Your task to perform on an android device: Go to Wikipedia Image 0: 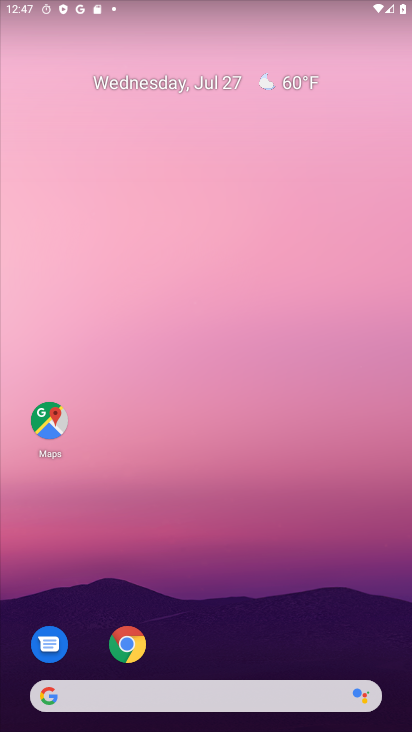
Step 0: drag from (221, 433) to (225, 185)
Your task to perform on an android device: Go to Wikipedia Image 1: 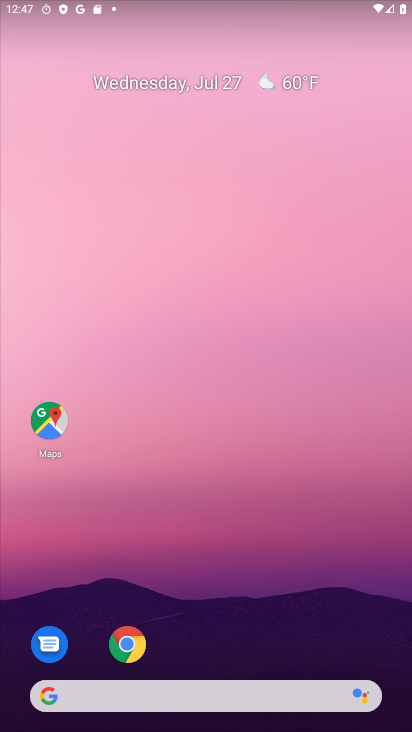
Step 1: drag from (222, 622) to (243, 219)
Your task to perform on an android device: Go to Wikipedia Image 2: 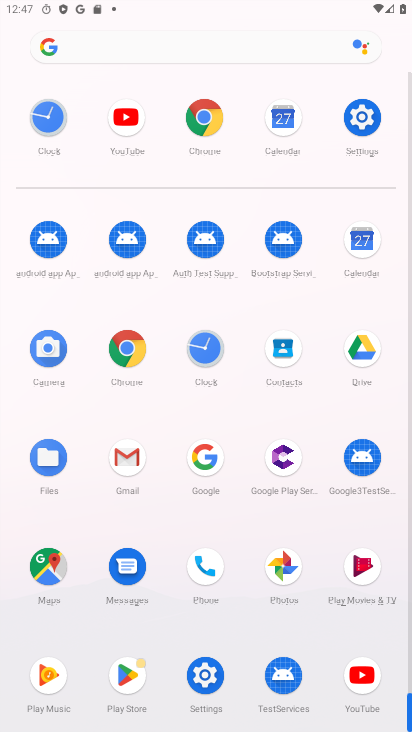
Step 2: click (155, 42)
Your task to perform on an android device: Go to Wikipedia Image 3: 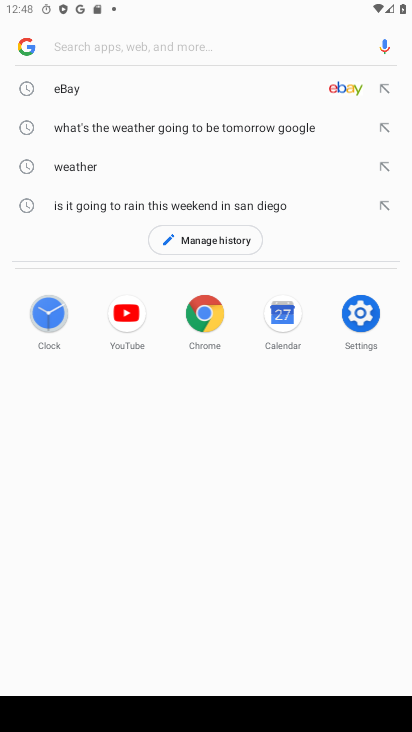
Step 3: type "Wikipedia"
Your task to perform on an android device: Go to Wikipedia Image 4: 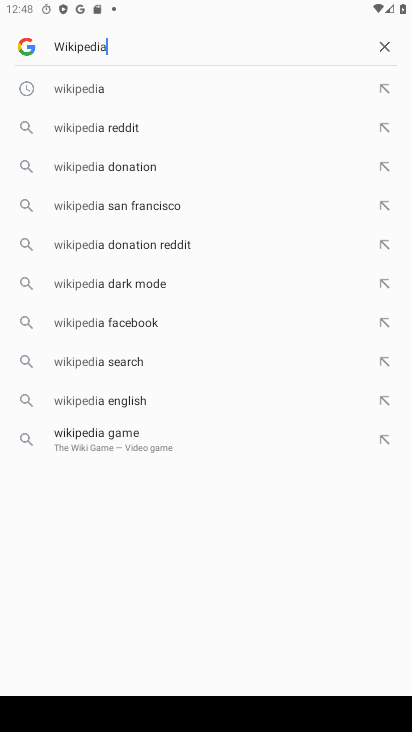
Step 4: type ""
Your task to perform on an android device: Go to Wikipedia Image 5: 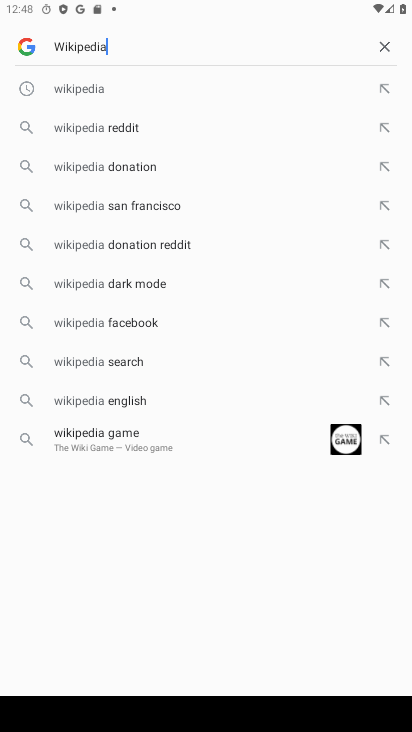
Step 5: click (104, 99)
Your task to perform on an android device: Go to Wikipedia Image 6: 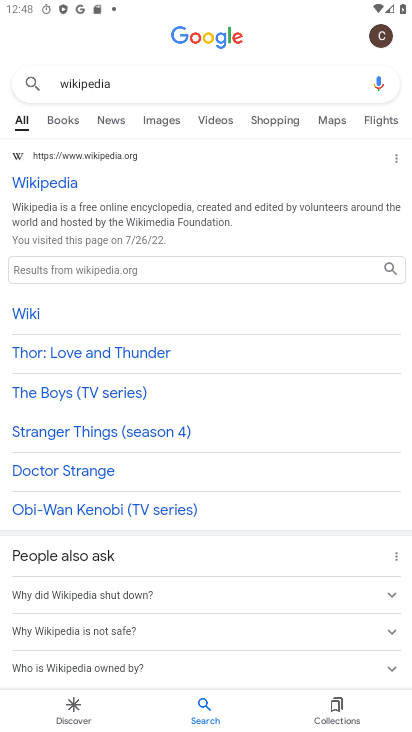
Step 6: click (29, 171)
Your task to perform on an android device: Go to Wikipedia Image 7: 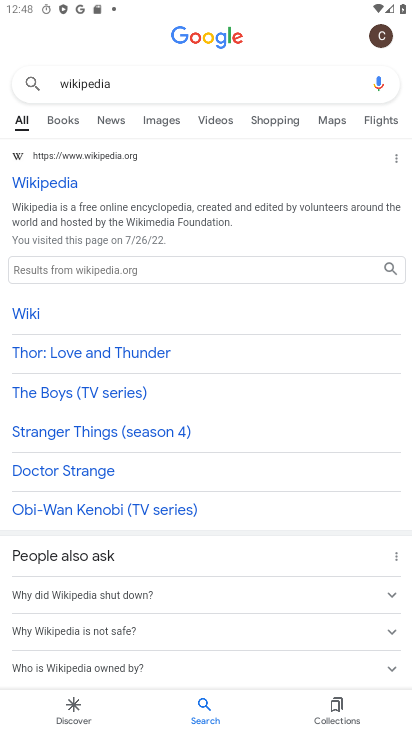
Step 7: click (31, 177)
Your task to perform on an android device: Go to Wikipedia Image 8: 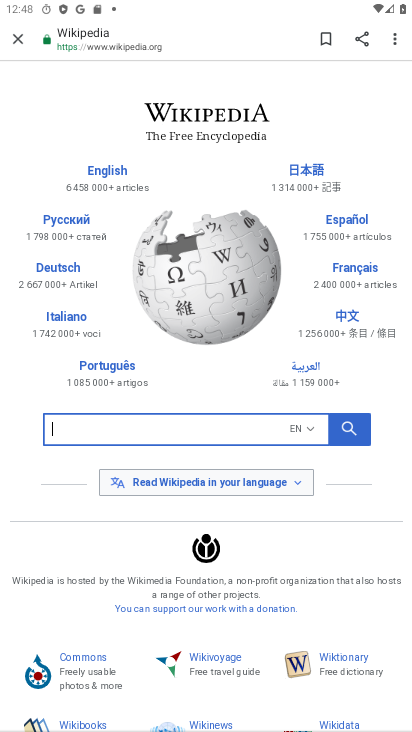
Step 8: task complete